Your task to perform on an android device: See recent photos Image 0: 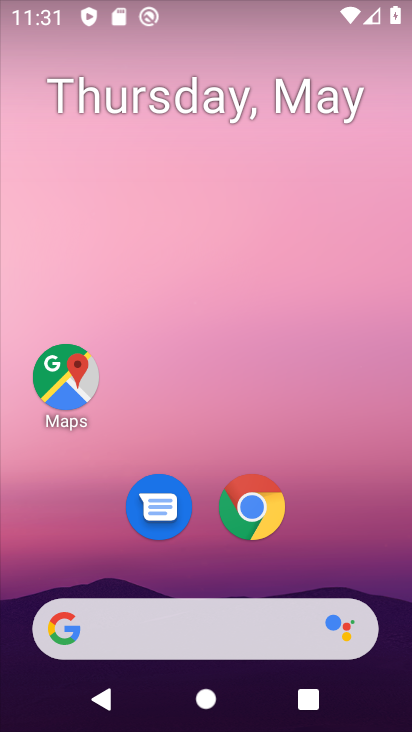
Step 0: drag from (264, 608) to (264, 171)
Your task to perform on an android device: See recent photos Image 1: 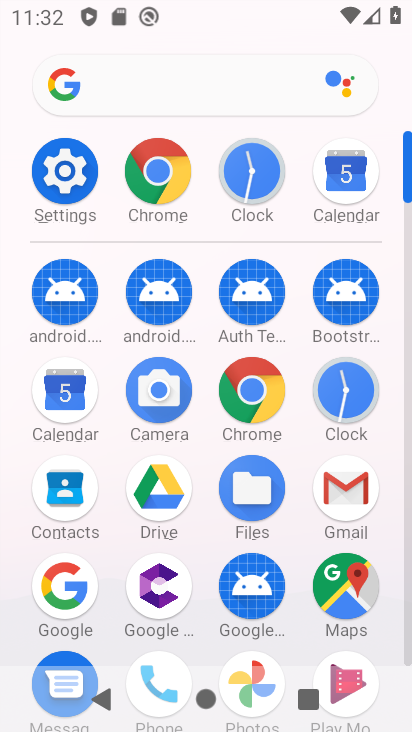
Step 1: drag from (273, 466) to (272, 128)
Your task to perform on an android device: See recent photos Image 2: 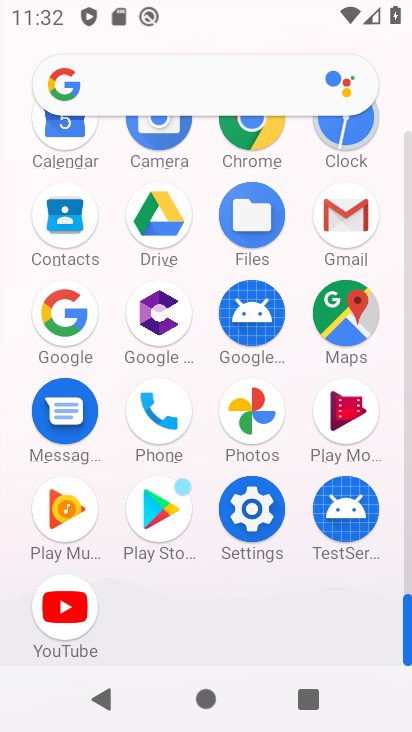
Step 2: click (261, 414)
Your task to perform on an android device: See recent photos Image 3: 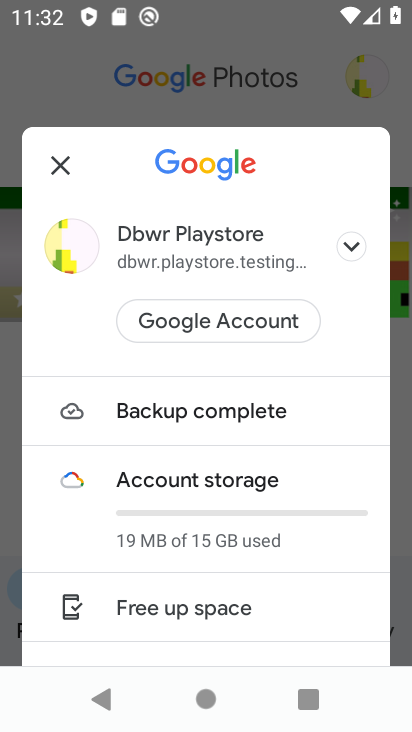
Step 3: click (60, 175)
Your task to perform on an android device: See recent photos Image 4: 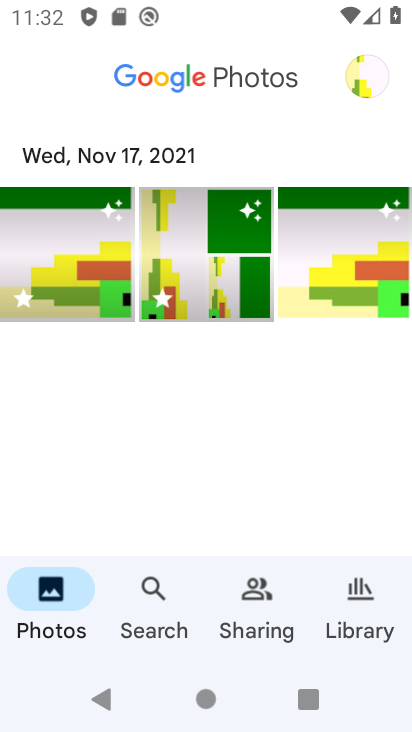
Step 4: task complete